Your task to perform on an android device: Search for nike dri-fit shirts on Nike Image 0: 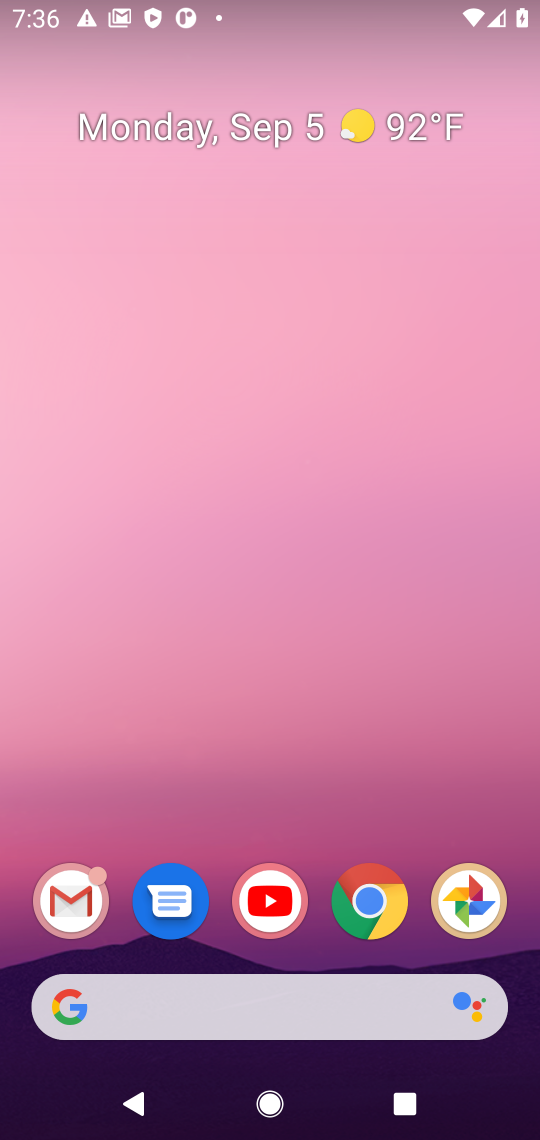
Step 0: click (364, 934)
Your task to perform on an android device: Search for nike dri-fit shirts on Nike Image 1: 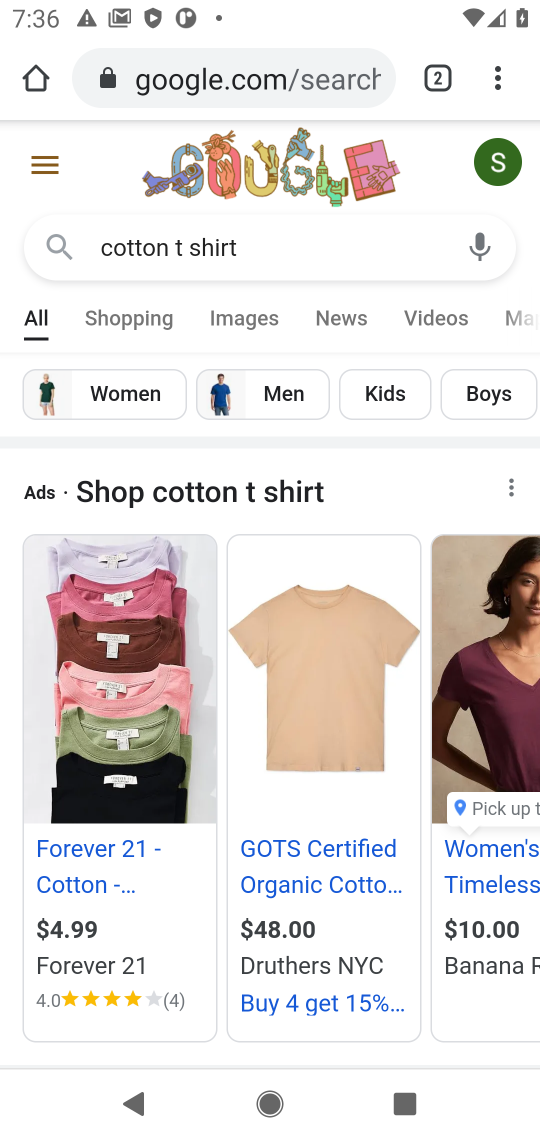
Step 1: click (302, 87)
Your task to perform on an android device: Search for nike dri-fit shirts on Nike Image 2: 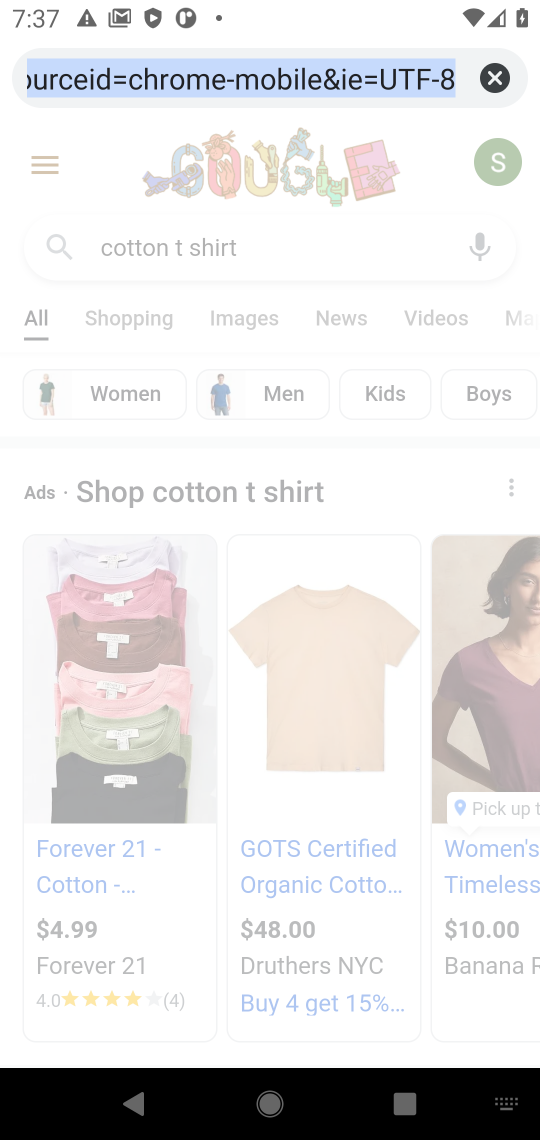
Step 2: type "dri fit shirts"
Your task to perform on an android device: Search for nike dri-fit shirts on Nike Image 3: 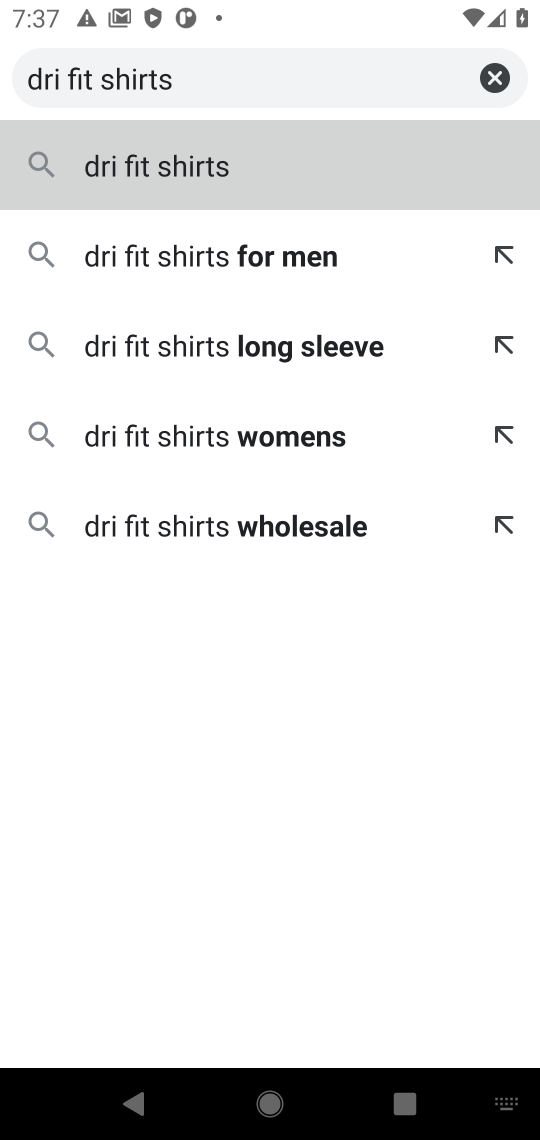
Step 3: click (317, 278)
Your task to perform on an android device: Search for nike dri-fit shirts on Nike Image 4: 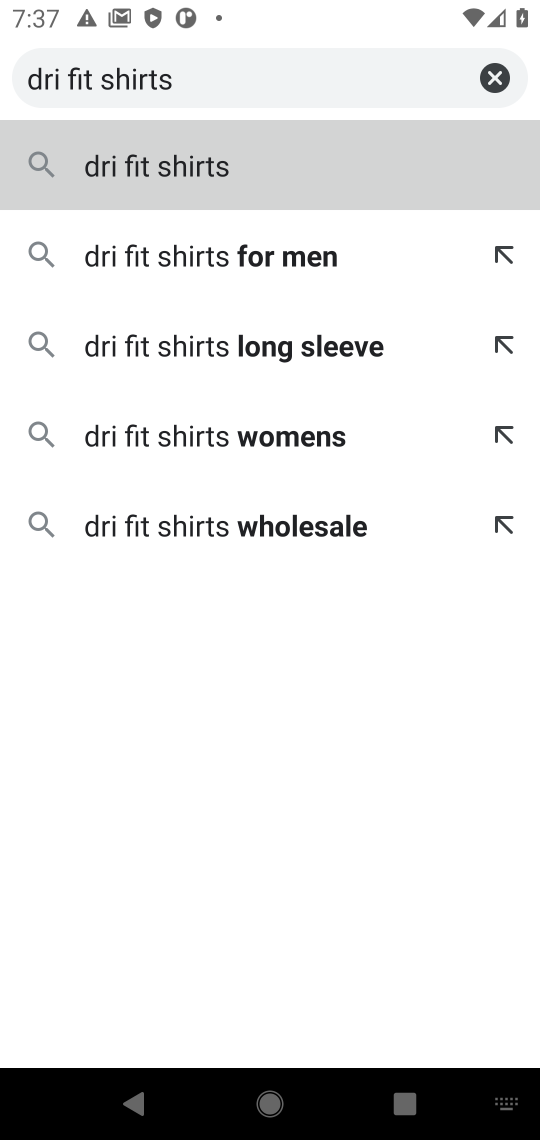
Step 4: click (307, 266)
Your task to perform on an android device: Search for nike dri-fit shirts on Nike Image 5: 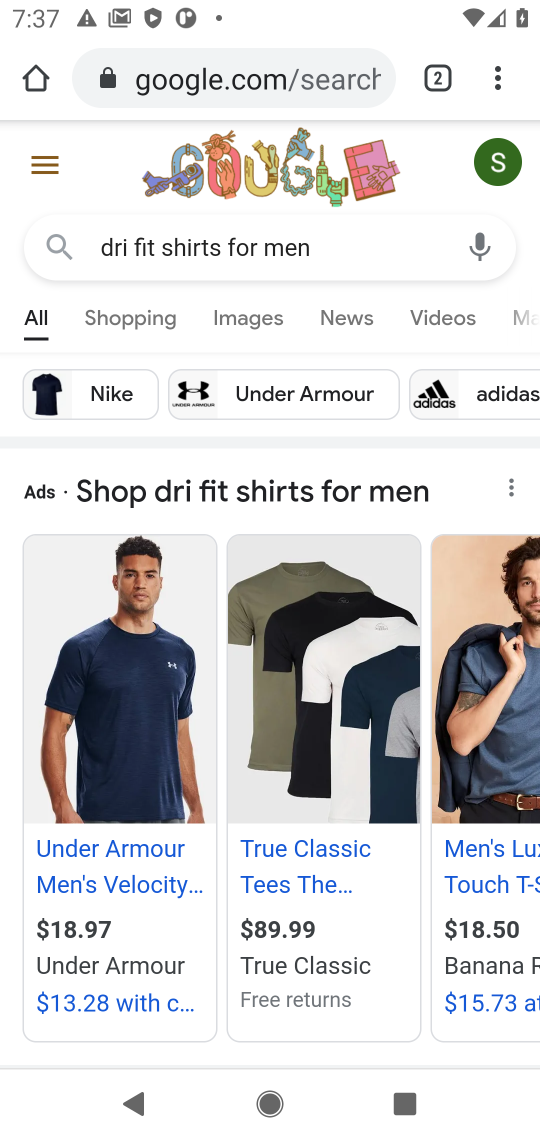
Step 5: click (96, 399)
Your task to perform on an android device: Search for nike dri-fit shirts on Nike Image 6: 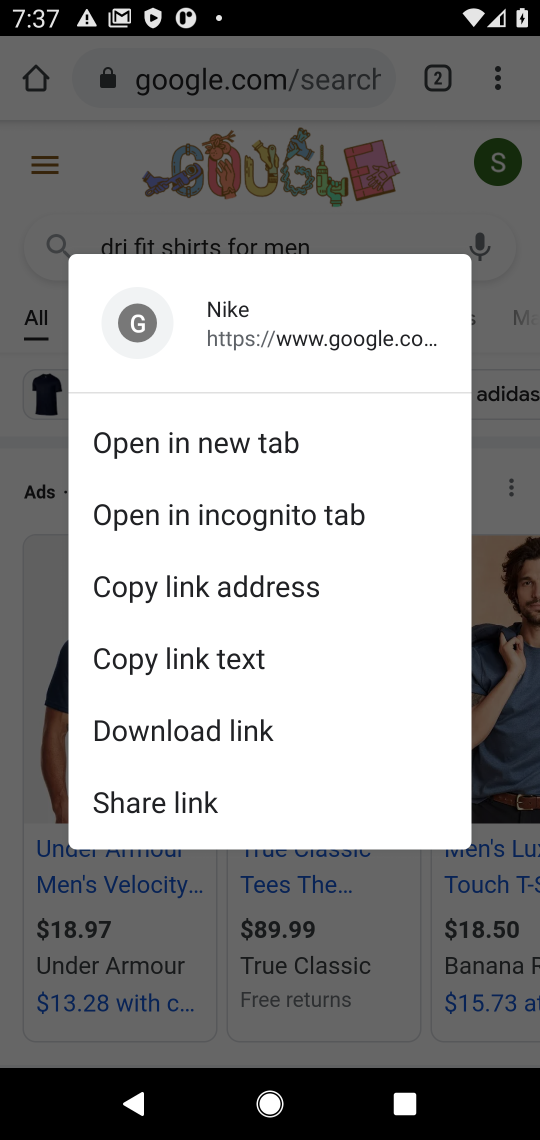
Step 6: click (141, 430)
Your task to perform on an android device: Search for nike dri-fit shirts on Nike Image 7: 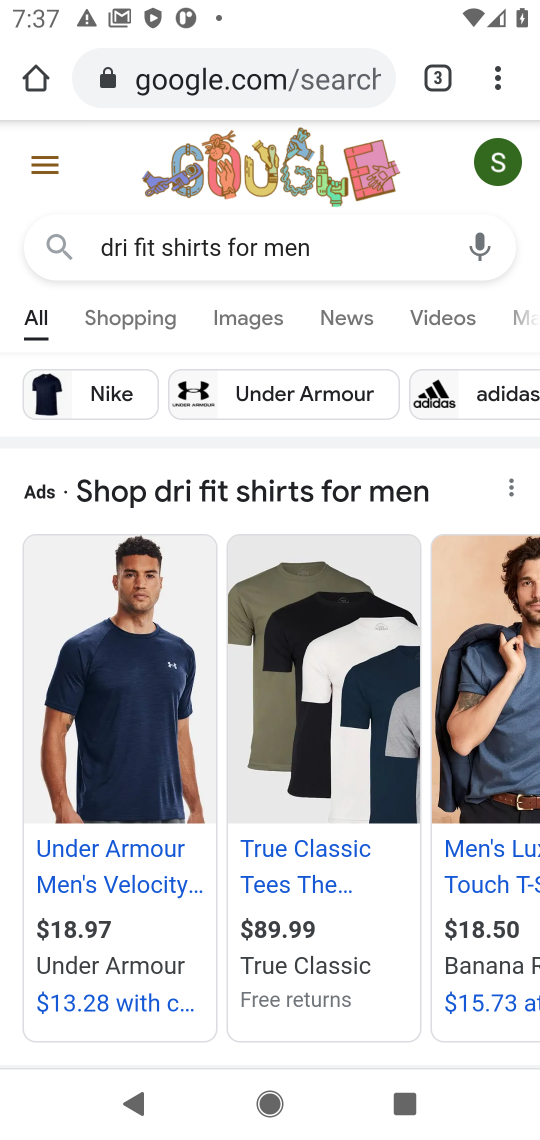
Step 7: task complete